Your task to perform on an android device: Turn off the flashlight Image 0: 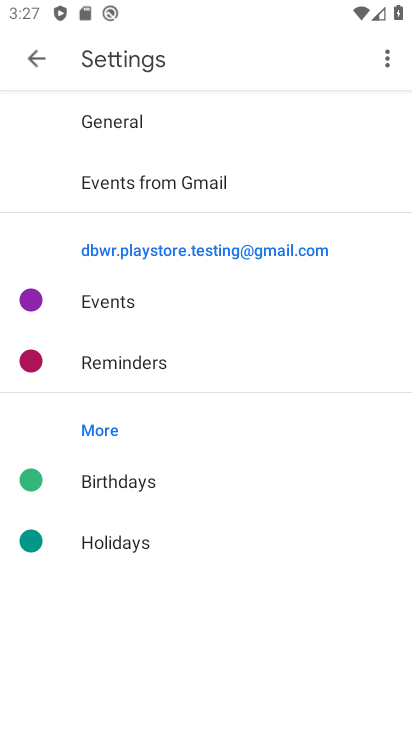
Step 0: press home button
Your task to perform on an android device: Turn off the flashlight Image 1: 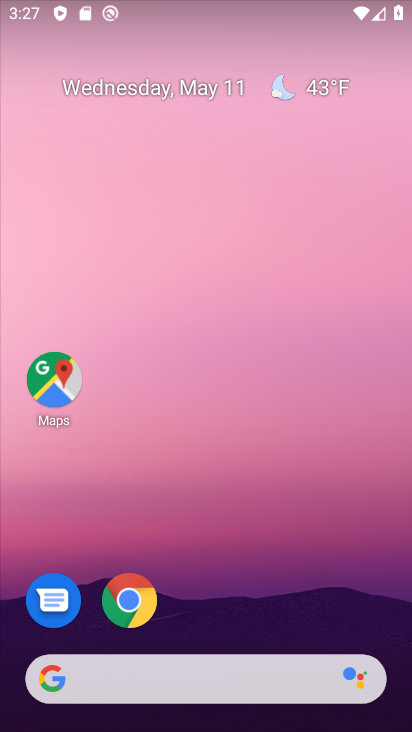
Step 1: task complete